Your task to perform on an android device: Open the web browser Image 0: 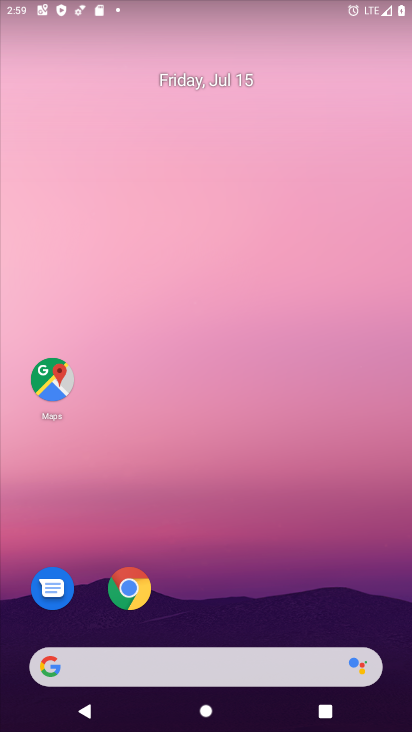
Step 0: click (131, 588)
Your task to perform on an android device: Open the web browser Image 1: 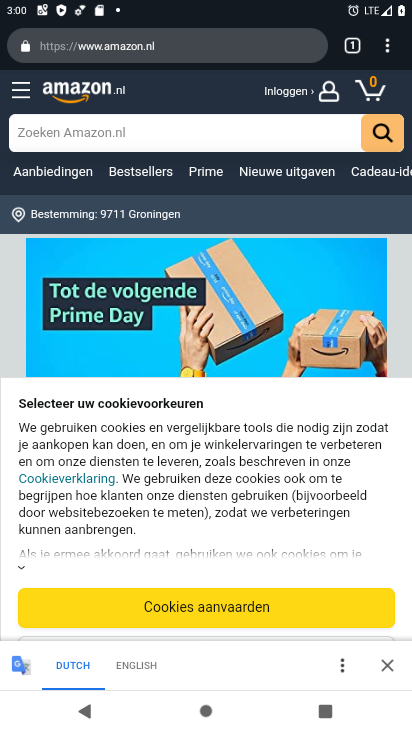
Step 1: task complete